Your task to perform on an android device: Show me productivity apps on the Play Store Image 0: 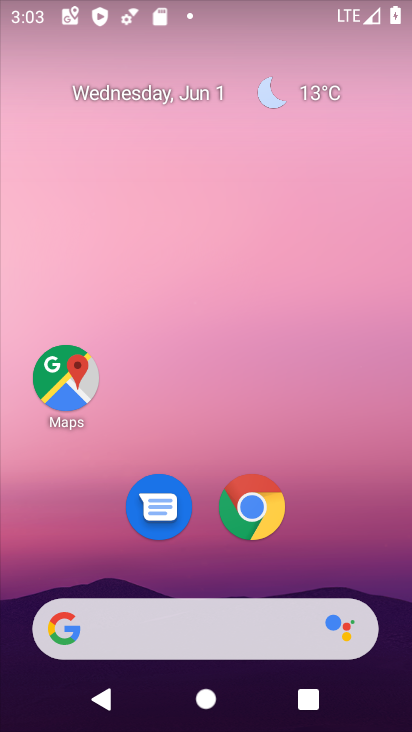
Step 0: drag from (335, 556) to (152, 71)
Your task to perform on an android device: Show me productivity apps on the Play Store Image 1: 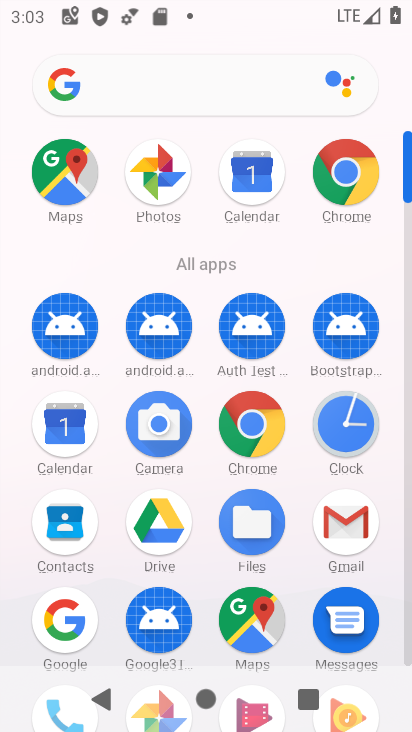
Step 1: drag from (206, 568) to (181, 369)
Your task to perform on an android device: Show me productivity apps on the Play Store Image 2: 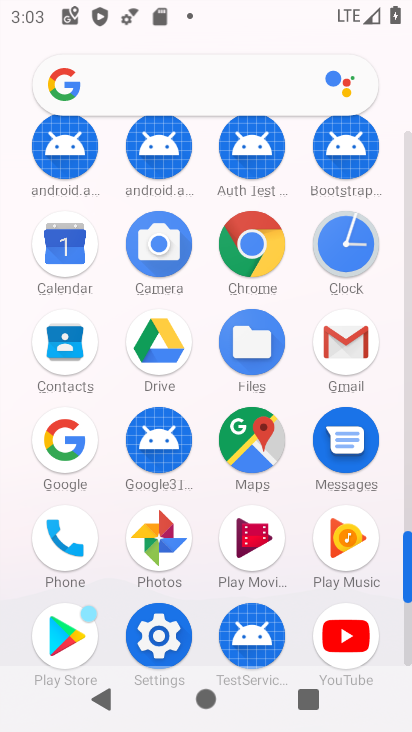
Step 2: click (80, 615)
Your task to perform on an android device: Show me productivity apps on the Play Store Image 3: 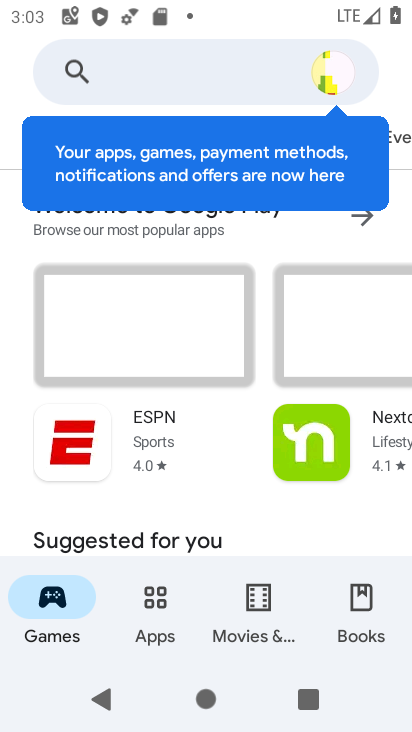
Step 3: click (156, 617)
Your task to perform on an android device: Show me productivity apps on the Play Store Image 4: 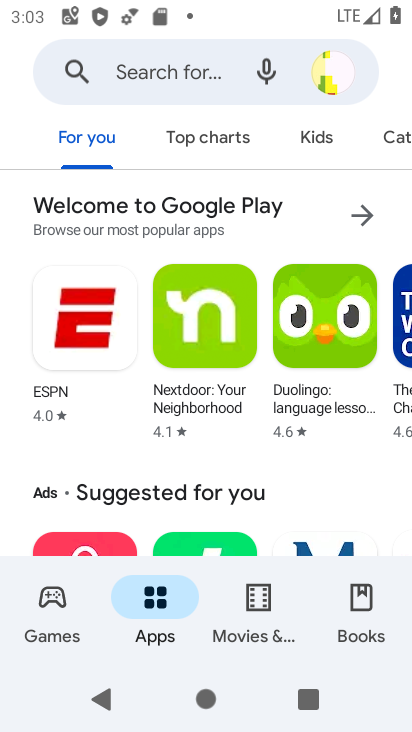
Step 4: click (397, 139)
Your task to perform on an android device: Show me productivity apps on the Play Store Image 5: 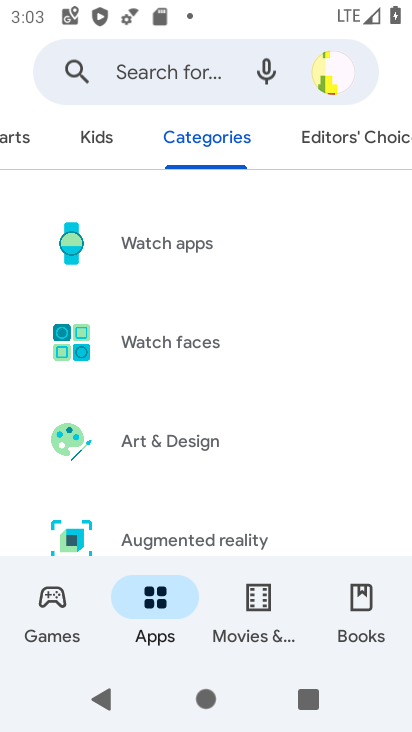
Step 5: drag from (297, 540) to (229, 6)
Your task to perform on an android device: Show me productivity apps on the Play Store Image 6: 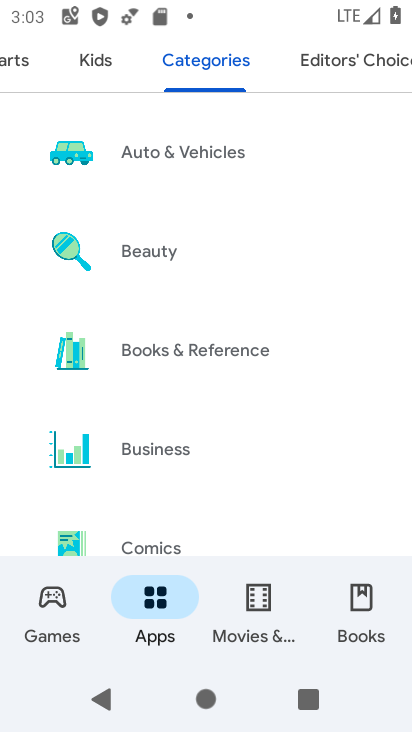
Step 6: drag from (278, 505) to (217, 60)
Your task to perform on an android device: Show me productivity apps on the Play Store Image 7: 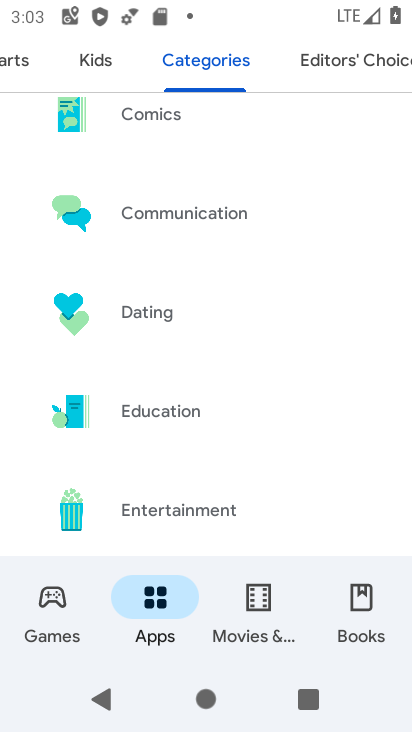
Step 7: drag from (280, 518) to (264, 43)
Your task to perform on an android device: Show me productivity apps on the Play Store Image 8: 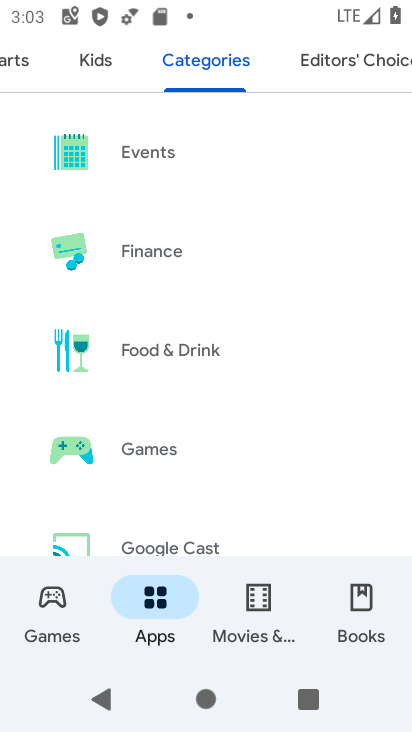
Step 8: drag from (308, 518) to (292, 80)
Your task to perform on an android device: Show me productivity apps on the Play Store Image 9: 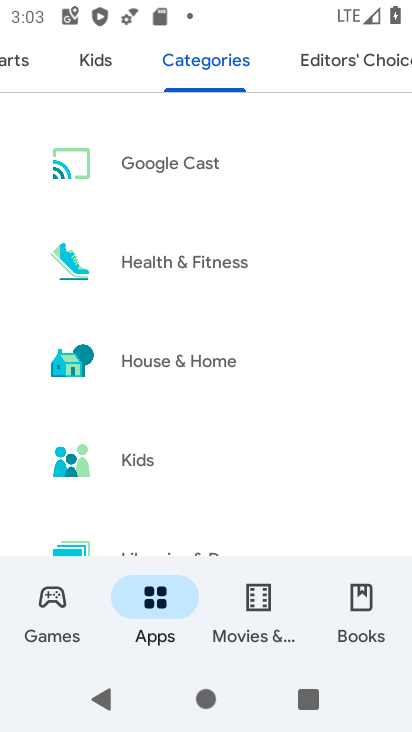
Step 9: drag from (323, 265) to (313, 110)
Your task to perform on an android device: Show me productivity apps on the Play Store Image 10: 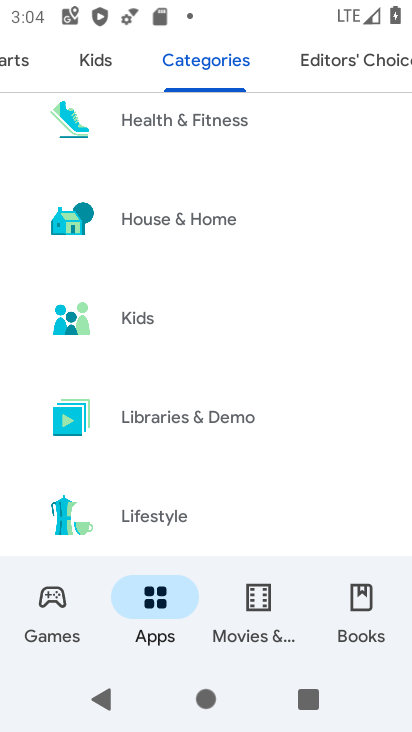
Step 10: drag from (355, 514) to (346, 26)
Your task to perform on an android device: Show me productivity apps on the Play Store Image 11: 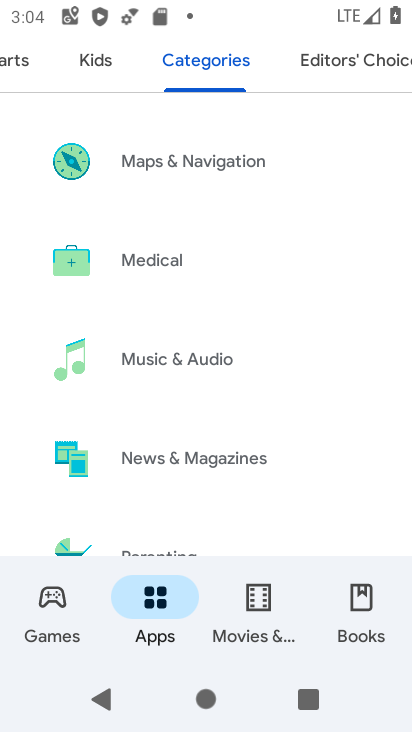
Step 11: drag from (355, 546) to (327, 149)
Your task to perform on an android device: Show me productivity apps on the Play Store Image 12: 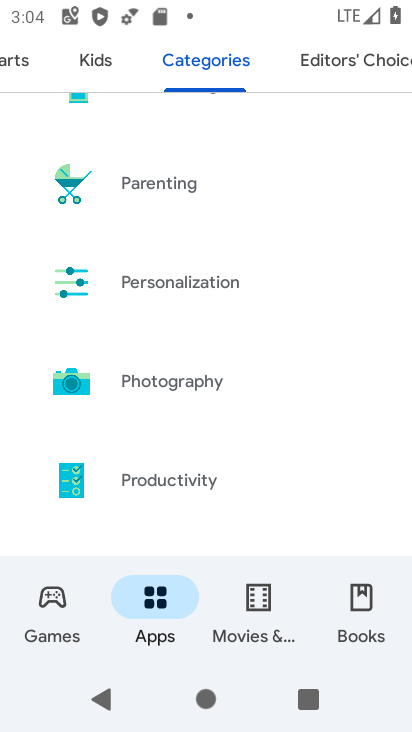
Step 12: click (148, 475)
Your task to perform on an android device: Show me productivity apps on the Play Store Image 13: 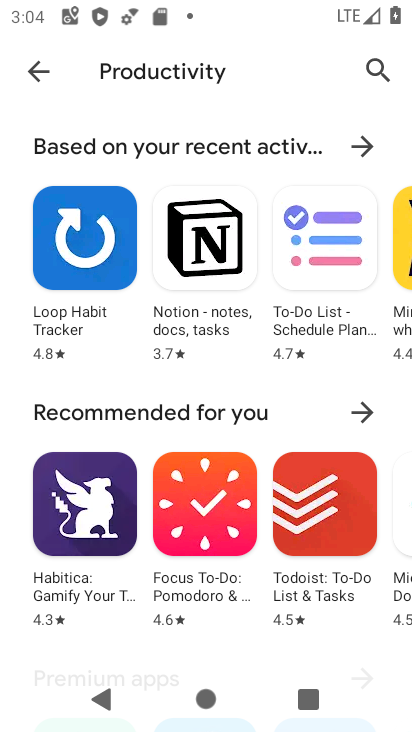
Step 13: task complete